Your task to perform on an android device: Show me recent news Image 0: 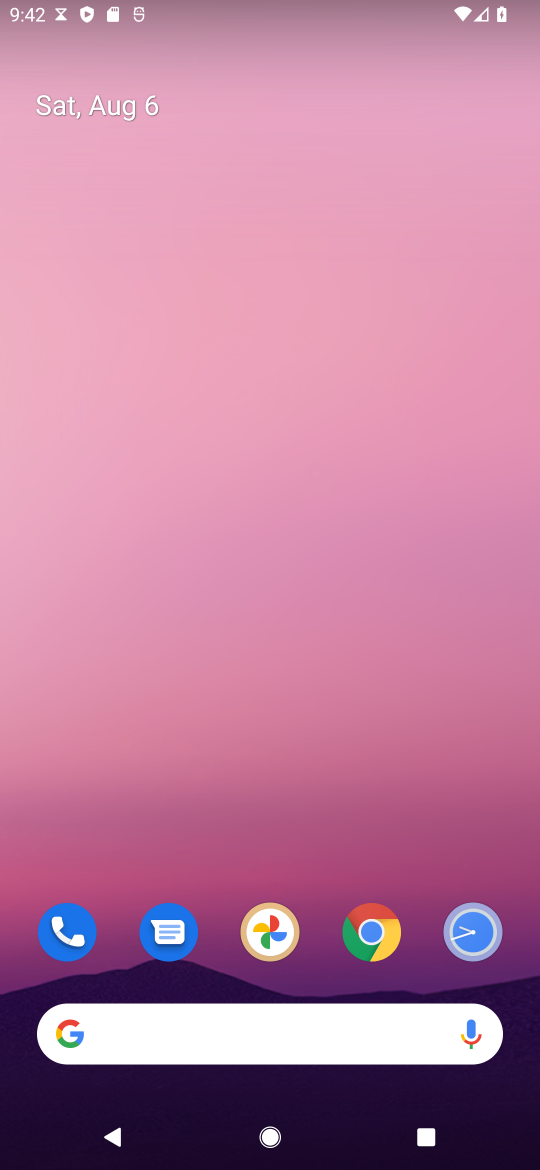
Step 0: drag from (248, 1021) to (284, 67)
Your task to perform on an android device: Show me recent news Image 1: 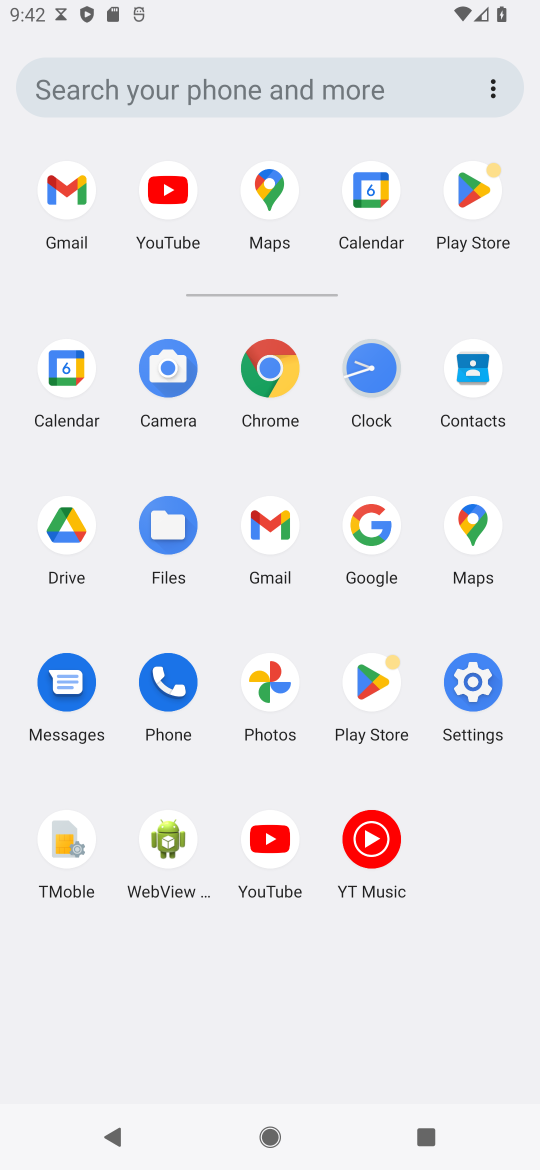
Step 1: click (367, 527)
Your task to perform on an android device: Show me recent news Image 2: 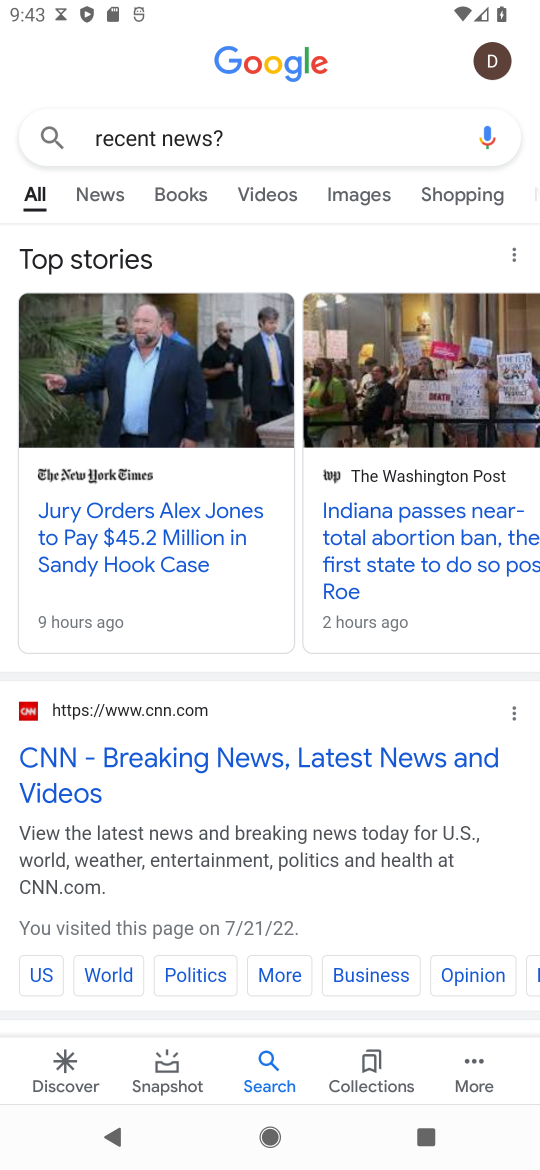
Step 2: click (377, 547)
Your task to perform on an android device: Show me recent news Image 3: 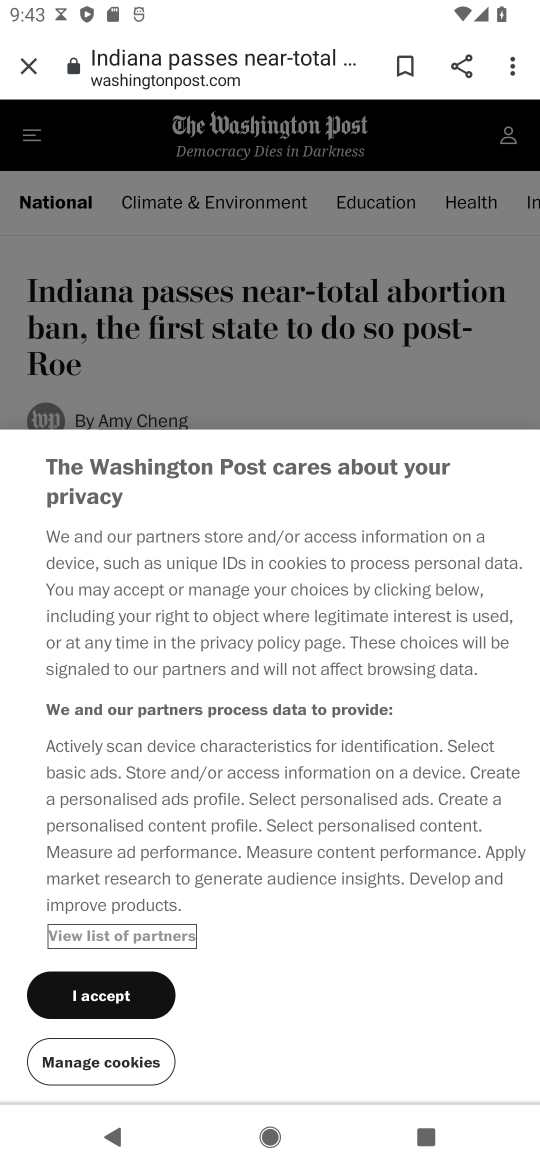
Step 3: click (119, 994)
Your task to perform on an android device: Show me recent news Image 4: 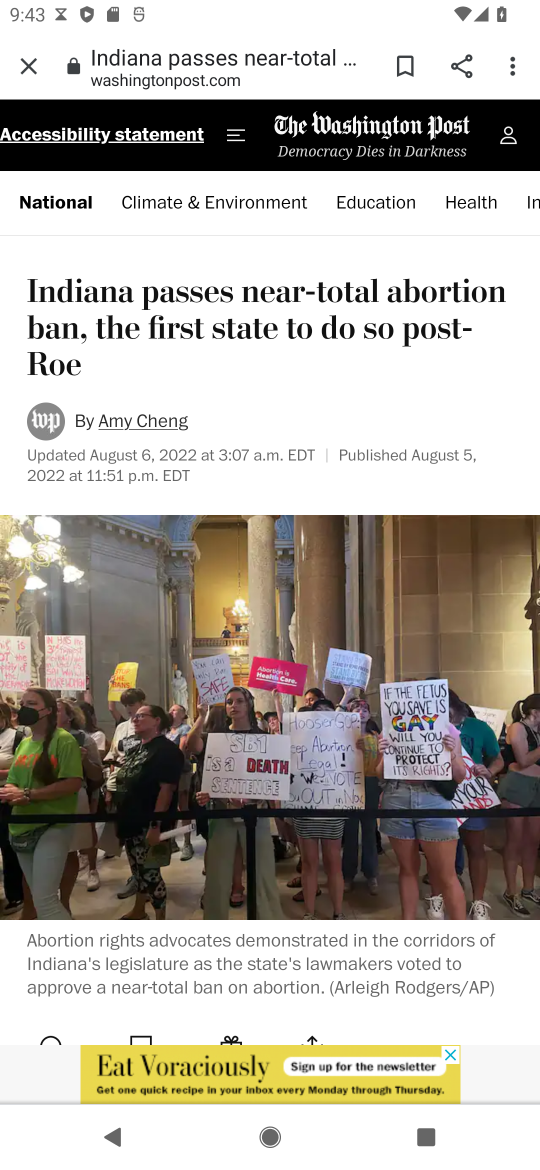
Step 4: task complete